Your task to perform on an android device: Open wifi settings Image 0: 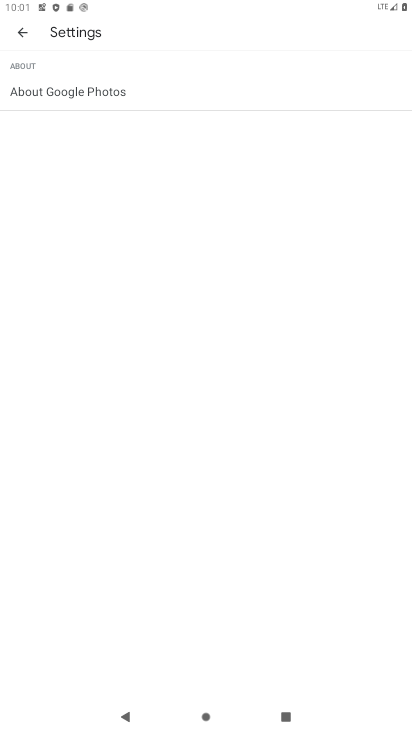
Step 0: press home button
Your task to perform on an android device: Open wifi settings Image 1: 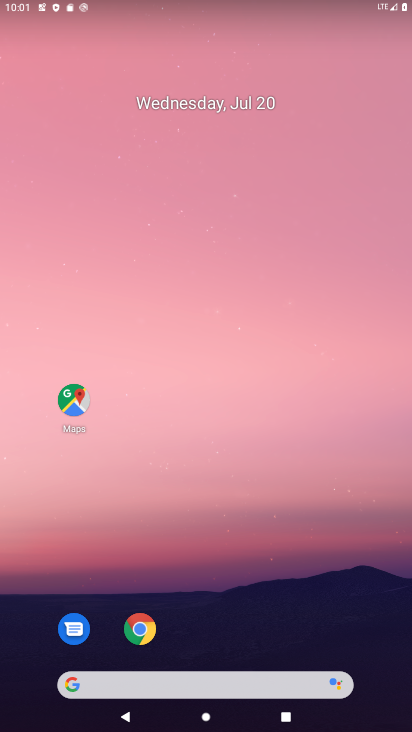
Step 1: drag from (334, 23) to (294, 279)
Your task to perform on an android device: Open wifi settings Image 2: 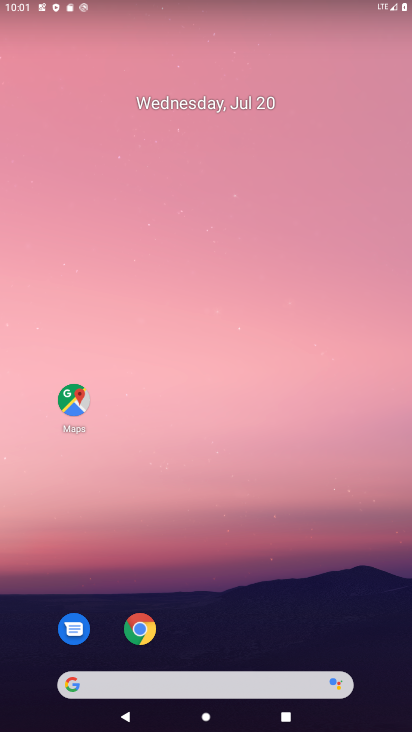
Step 2: drag from (386, 7) to (291, 356)
Your task to perform on an android device: Open wifi settings Image 3: 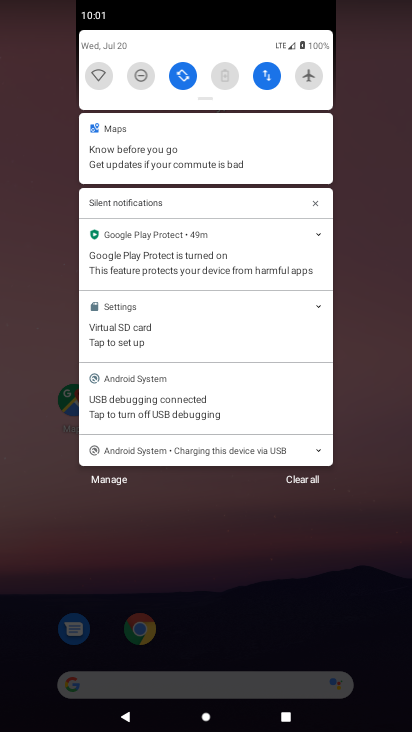
Step 3: click (103, 72)
Your task to perform on an android device: Open wifi settings Image 4: 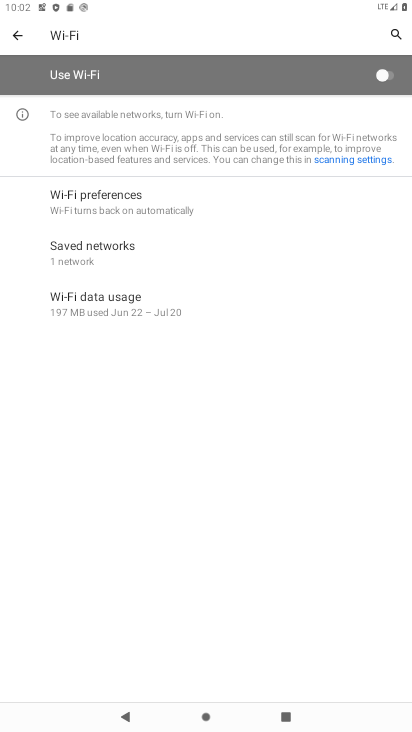
Step 4: task complete